Your task to perform on an android device: turn on javascript in the chrome app Image 0: 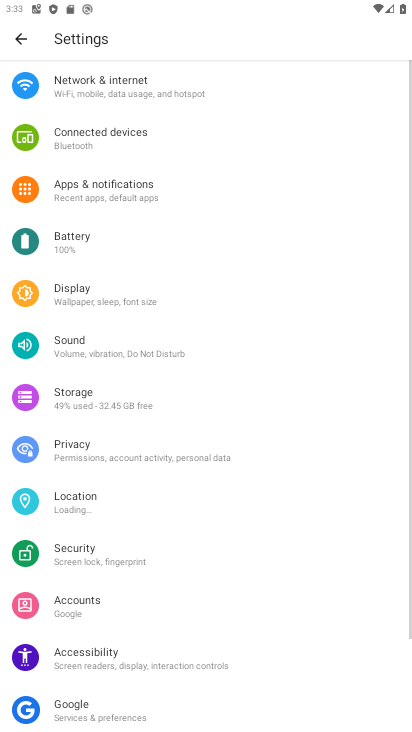
Step 0: press home button
Your task to perform on an android device: turn on javascript in the chrome app Image 1: 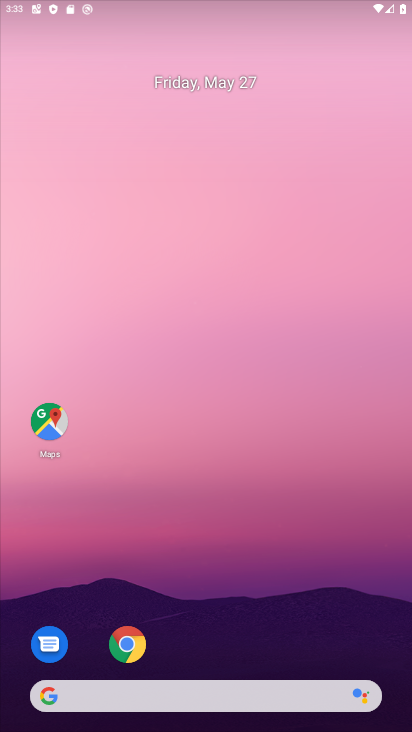
Step 1: drag from (298, 606) to (171, 16)
Your task to perform on an android device: turn on javascript in the chrome app Image 2: 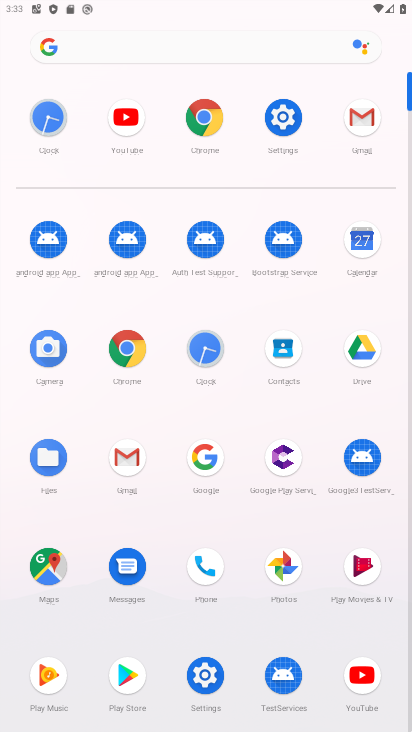
Step 2: click (131, 362)
Your task to perform on an android device: turn on javascript in the chrome app Image 3: 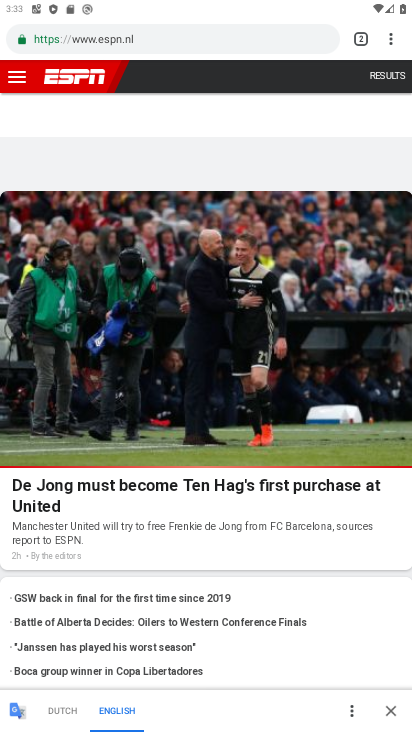
Step 3: click (391, 32)
Your task to perform on an android device: turn on javascript in the chrome app Image 4: 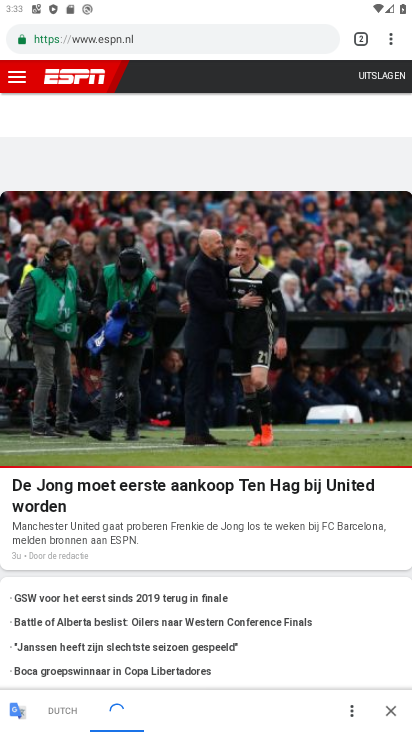
Step 4: click (387, 33)
Your task to perform on an android device: turn on javascript in the chrome app Image 5: 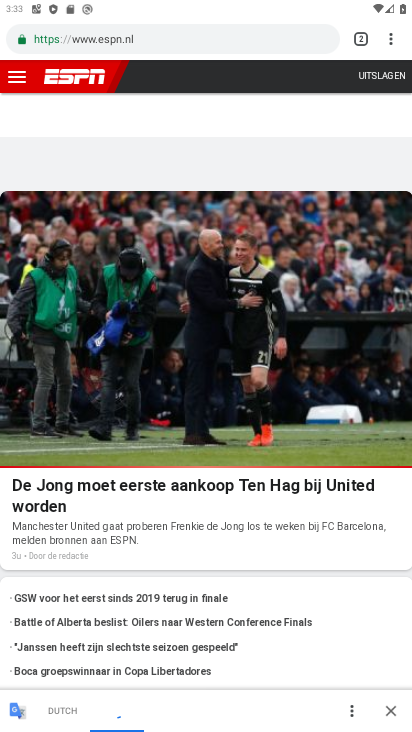
Step 5: click (390, 33)
Your task to perform on an android device: turn on javascript in the chrome app Image 6: 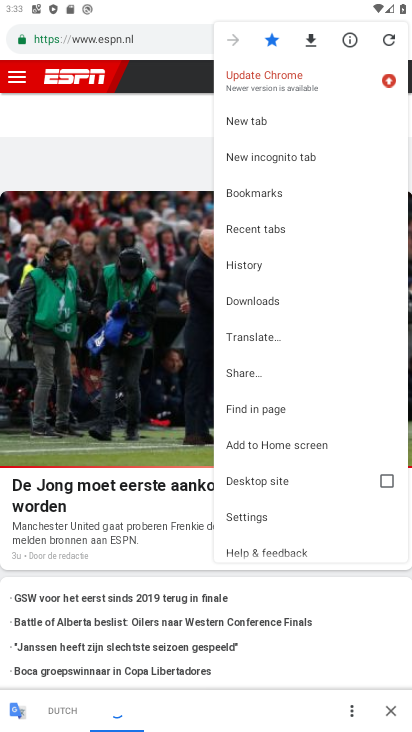
Step 6: click (264, 503)
Your task to perform on an android device: turn on javascript in the chrome app Image 7: 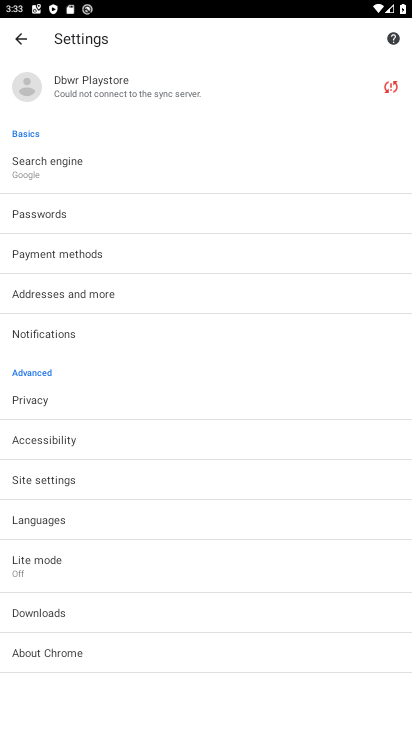
Step 7: click (71, 483)
Your task to perform on an android device: turn on javascript in the chrome app Image 8: 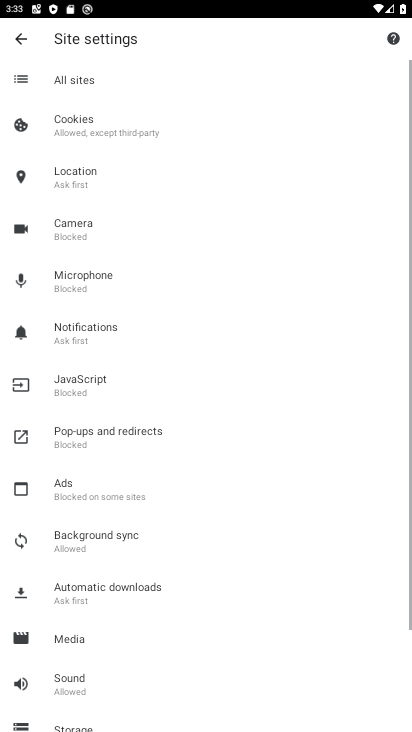
Step 8: click (91, 387)
Your task to perform on an android device: turn on javascript in the chrome app Image 9: 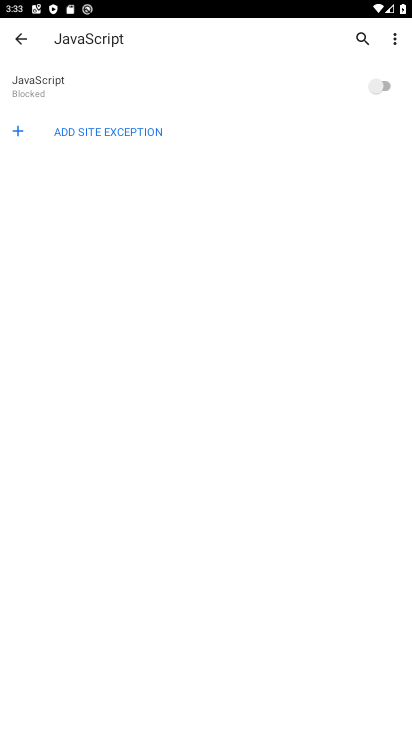
Step 9: click (367, 76)
Your task to perform on an android device: turn on javascript in the chrome app Image 10: 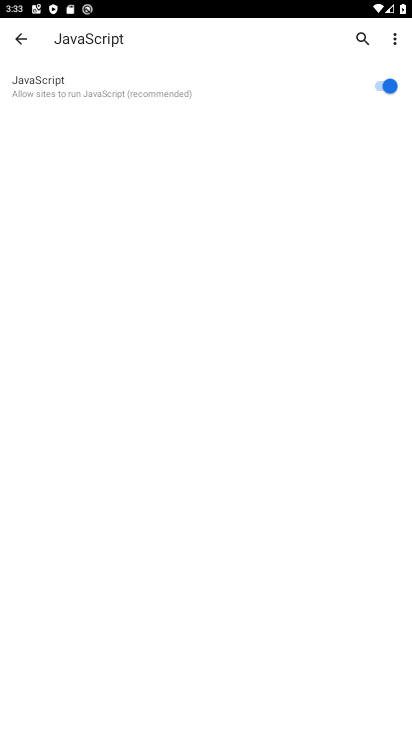
Step 10: task complete